Your task to perform on an android device: Open calendar and show me the third week of next month Image 0: 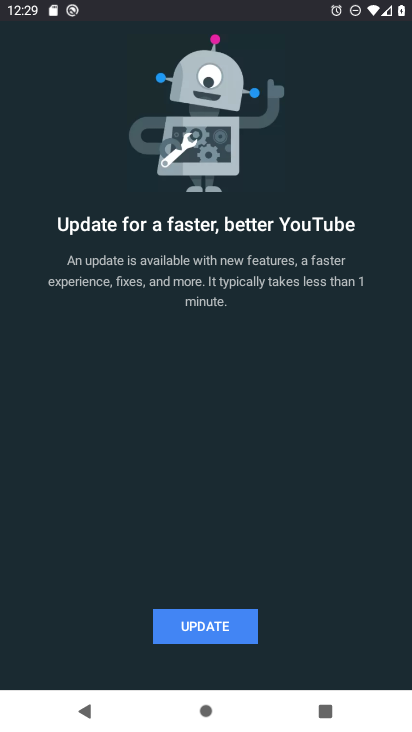
Step 0: press home button
Your task to perform on an android device: Open calendar and show me the third week of next month Image 1: 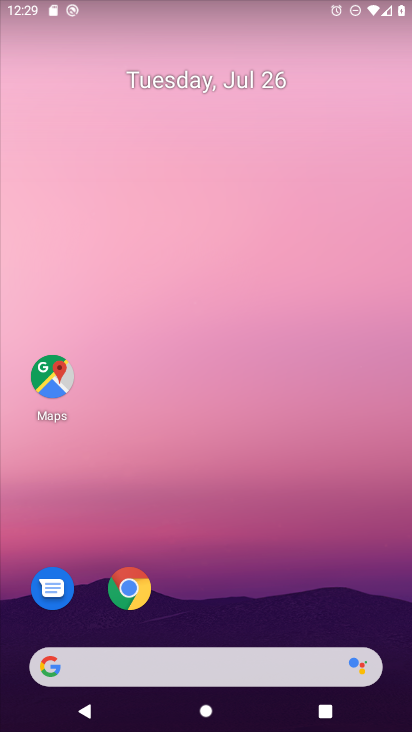
Step 1: drag from (318, 611) to (196, 61)
Your task to perform on an android device: Open calendar and show me the third week of next month Image 2: 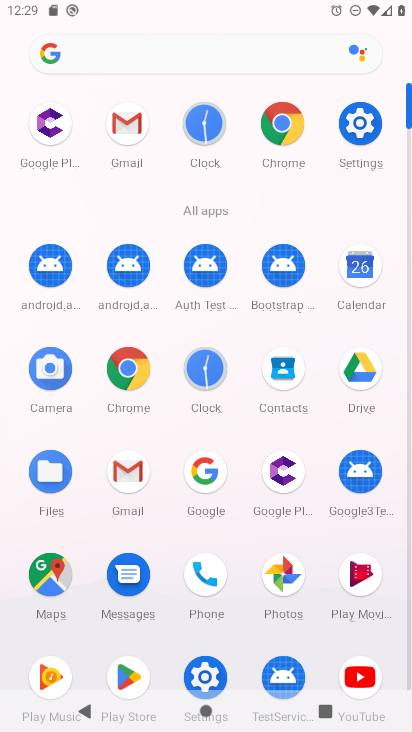
Step 2: click (369, 280)
Your task to perform on an android device: Open calendar and show me the third week of next month Image 3: 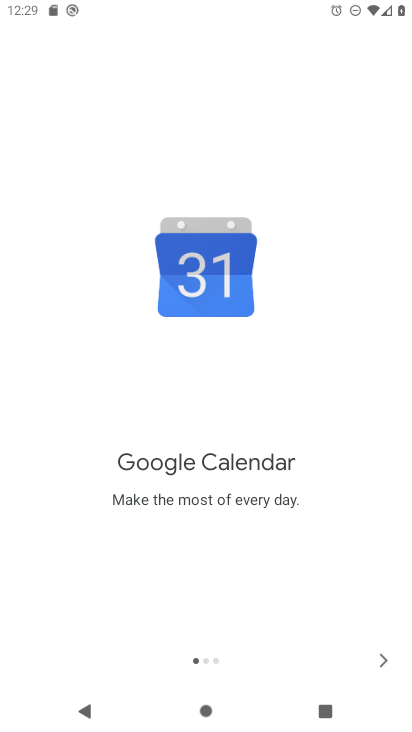
Step 3: click (385, 662)
Your task to perform on an android device: Open calendar and show me the third week of next month Image 4: 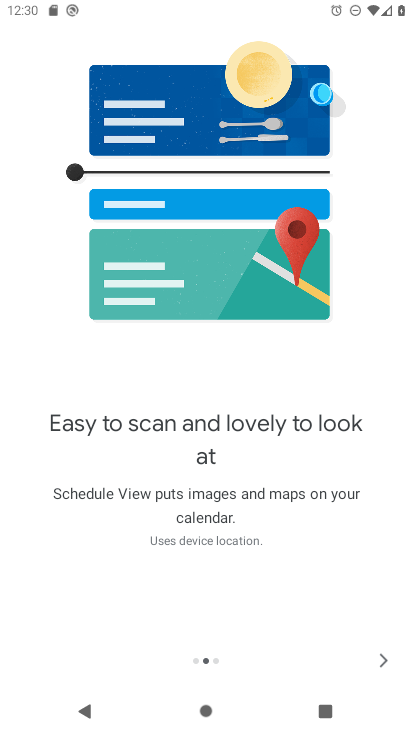
Step 4: click (385, 662)
Your task to perform on an android device: Open calendar and show me the third week of next month Image 5: 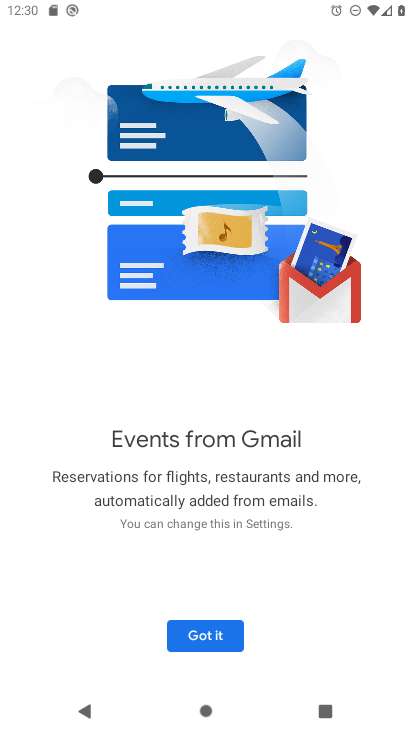
Step 5: click (222, 636)
Your task to perform on an android device: Open calendar and show me the third week of next month Image 6: 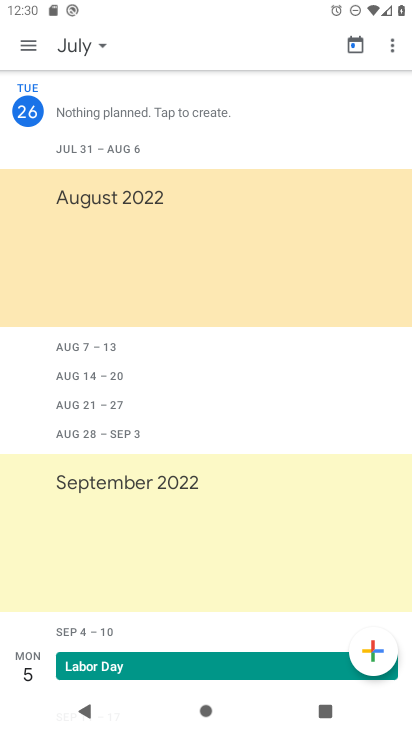
Step 6: click (33, 53)
Your task to perform on an android device: Open calendar and show me the third week of next month Image 7: 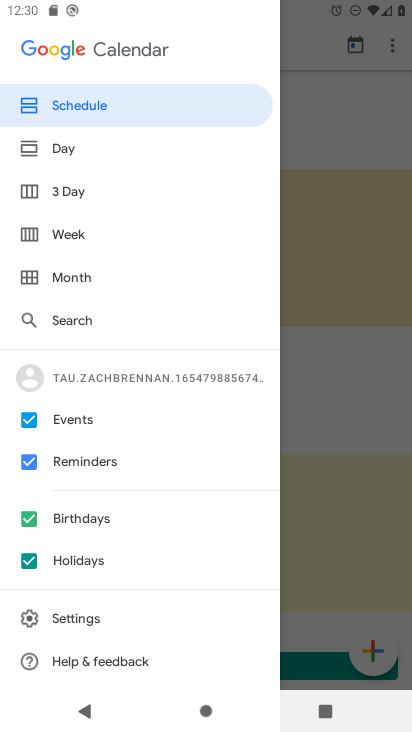
Step 7: click (69, 238)
Your task to perform on an android device: Open calendar and show me the third week of next month Image 8: 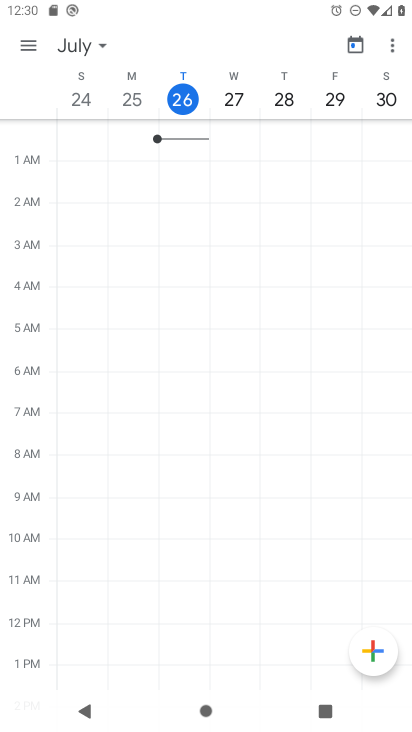
Step 8: click (103, 46)
Your task to perform on an android device: Open calendar and show me the third week of next month Image 9: 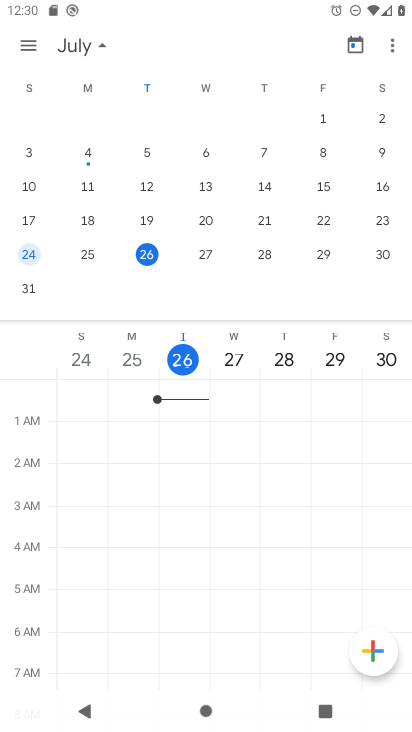
Step 9: drag from (400, 243) to (92, 160)
Your task to perform on an android device: Open calendar and show me the third week of next month Image 10: 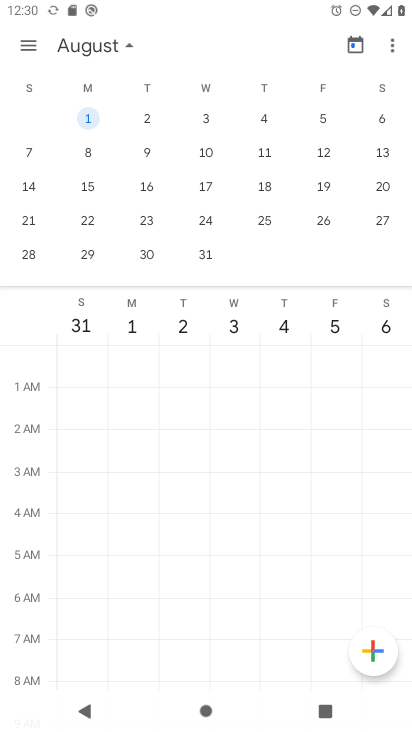
Step 10: click (201, 184)
Your task to perform on an android device: Open calendar and show me the third week of next month Image 11: 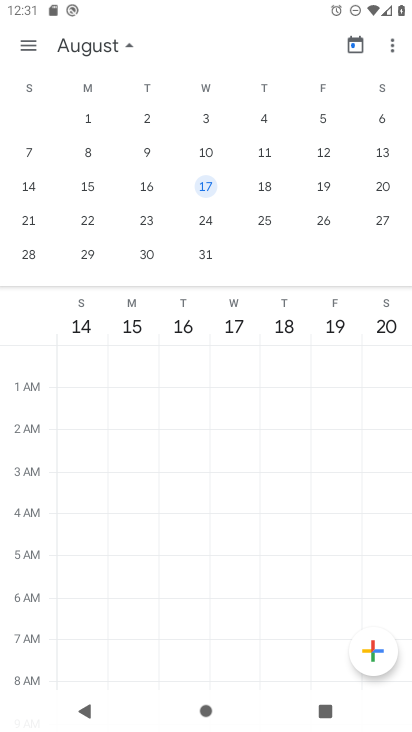
Step 11: task complete